Your task to perform on an android device: see sites visited before in the chrome app Image 0: 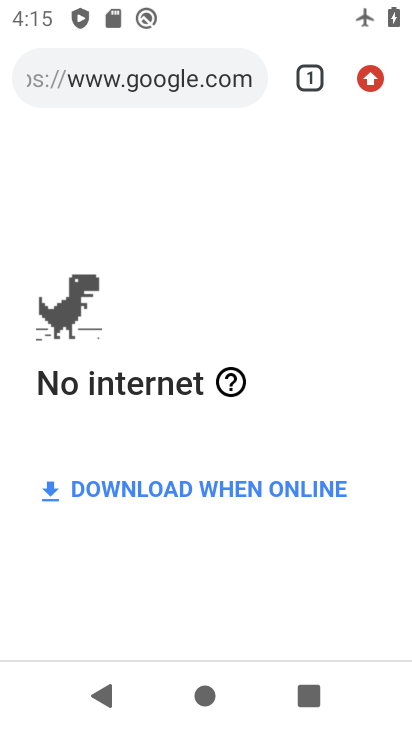
Step 0: press home button
Your task to perform on an android device: see sites visited before in the chrome app Image 1: 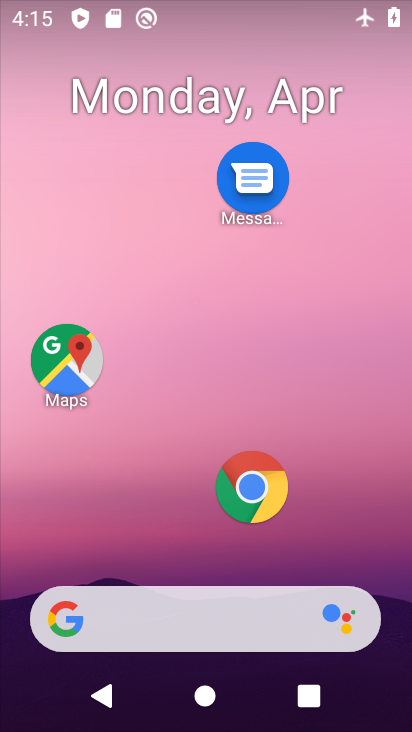
Step 1: click (223, 502)
Your task to perform on an android device: see sites visited before in the chrome app Image 2: 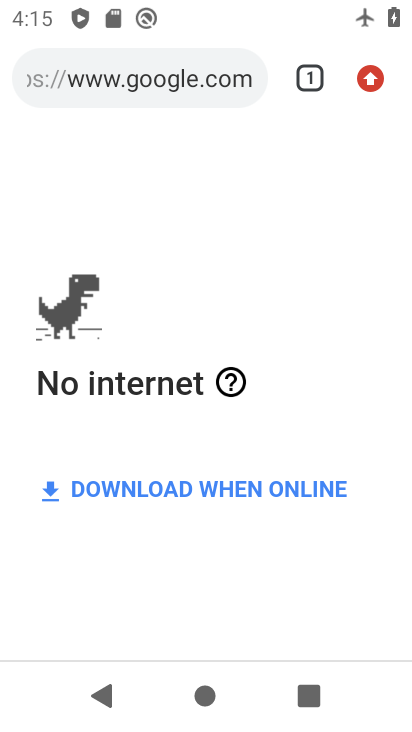
Step 2: click (366, 65)
Your task to perform on an android device: see sites visited before in the chrome app Image 3: 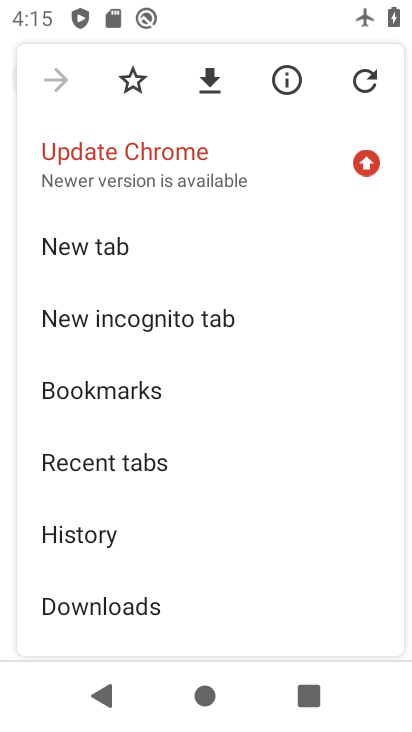
Step 3: drag from (129, 511) to (169, 327)
Your task to perform on an android device: see sites visited before in the chrome app Image 4: 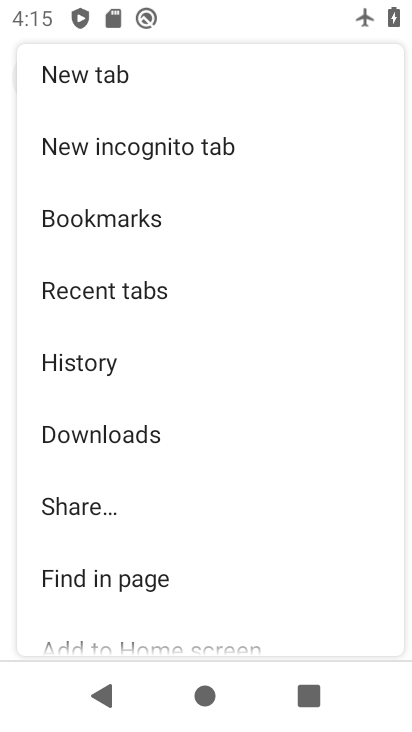
Step 4: click (110, 359)
Your task to perform on an android device: see sites visited before in the chrome app Image 5: 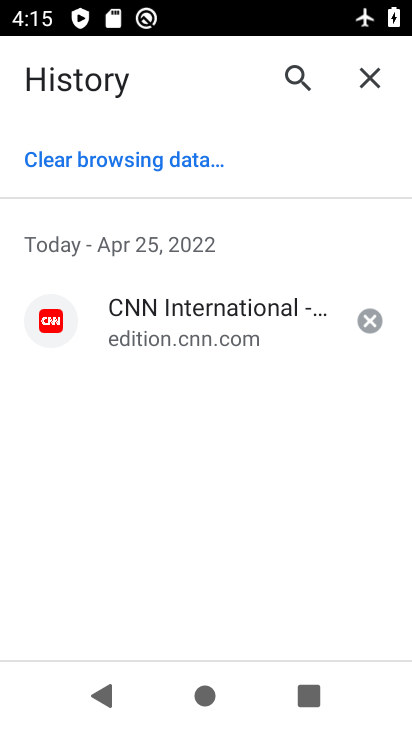
Step 5: task complete